Your task to perform on an android device: allow cookies in the chrome app Image 0: 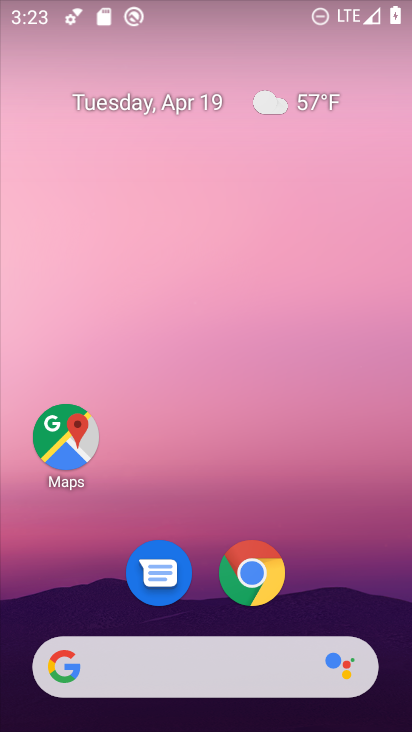
Step 0: click (250, 577)
Your task to perform on an android device: allow cookies in the chrome app Image 1: 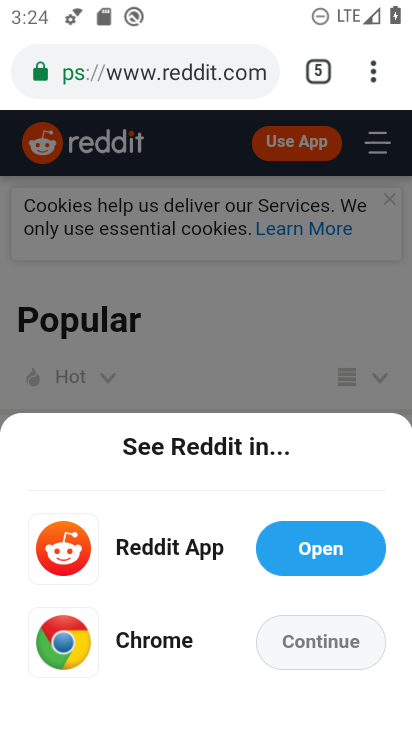
Step 1: click (372, 68)
Your task to perform on an android device: allow cookies in the chrome app Image 2: 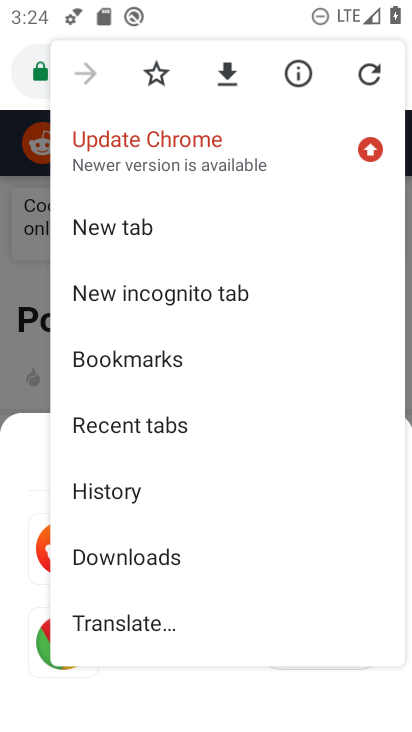
Step 2: drag from (246, 491) to (206, 207)
Your task to perform on an android device: allow cookies in the chrome app Image 3: 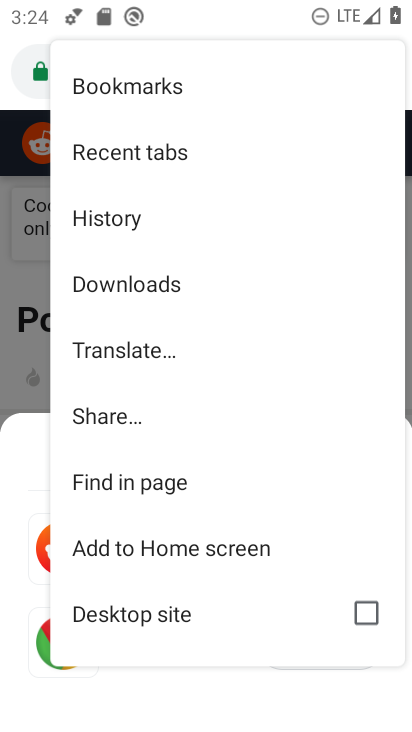
Step 3: drag from (261, 549) to (235, 204)
Your task to perform on an android device: allow cookies in the chrome app Image 4: 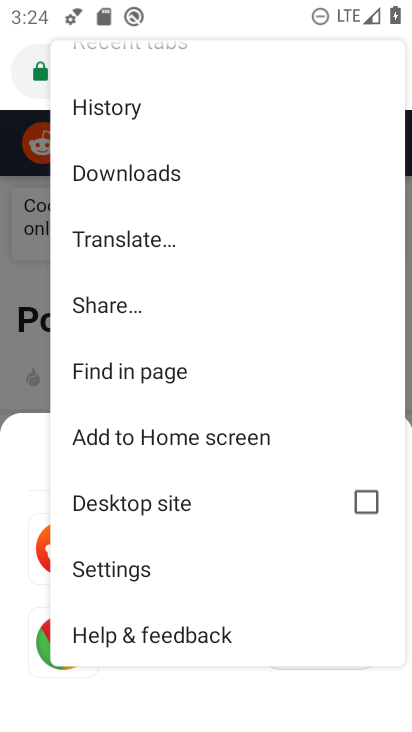
Step 4: click (97, 574)
Your task to perform on an android device: allow cookies in the chrome app Image 5: 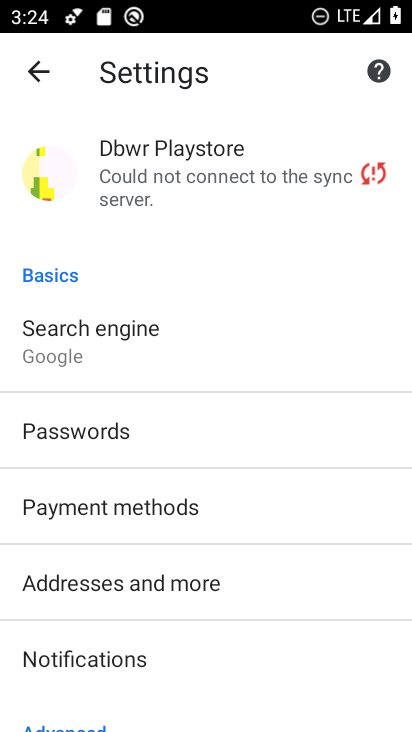
Step 5: drag from (244, 540) to (227, 186)
Your task to perform on an android device: allow cookies in the chrome app Image 6: 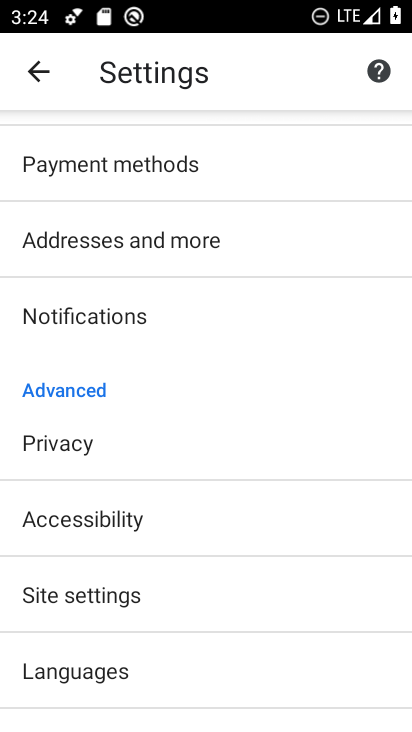
Step 6: click (109, 595)
Your task to perform on an android device: allow cookies in the chrome app Image 7: 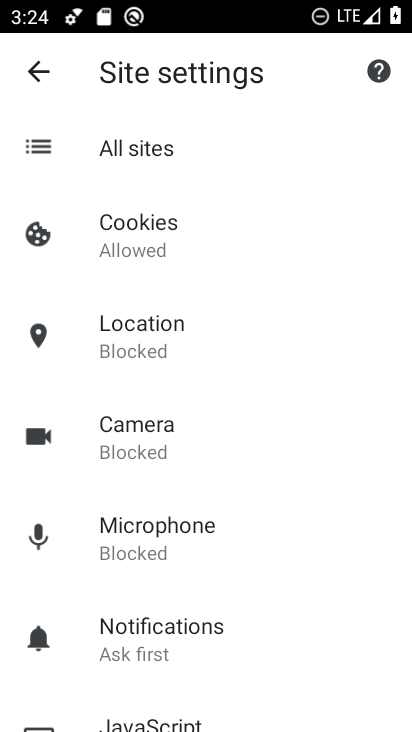
Step 7: click (136, 248)
Your task to perform on an android device: allow cookies in the chrome app Image 8: 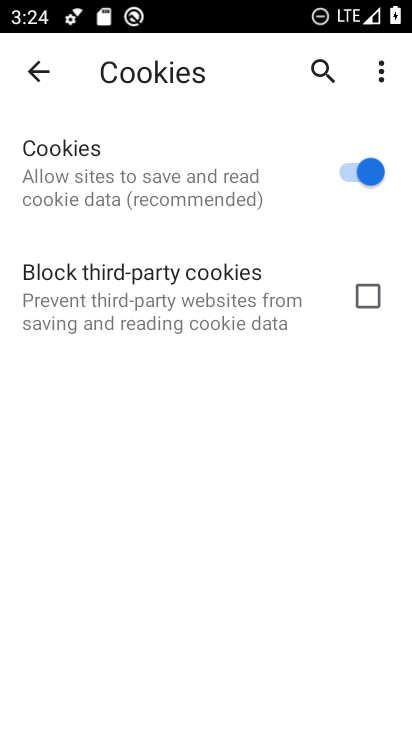
Step 8: task complete